Your task to perform on an android device: check storage Image 0: 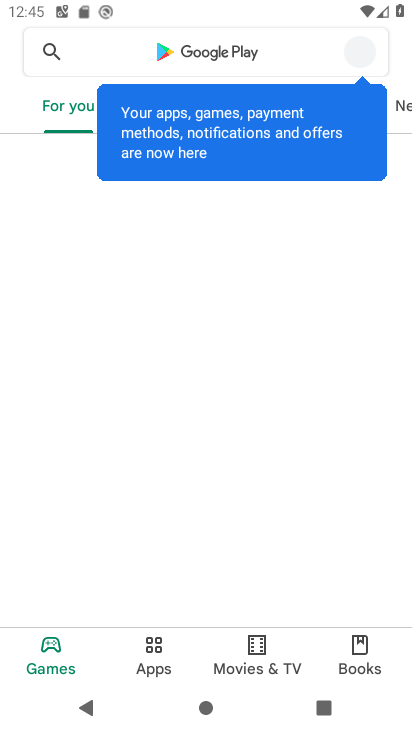
Step 0: press home button
Your task to perform on an android device: check storage Image 1: 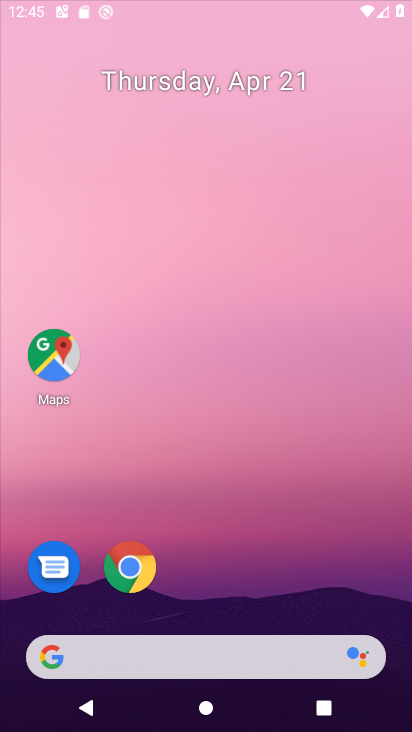
Step 1: drag from (303, 556) to (288, 12)
Your task to perform on an android device: check storage Image 2: 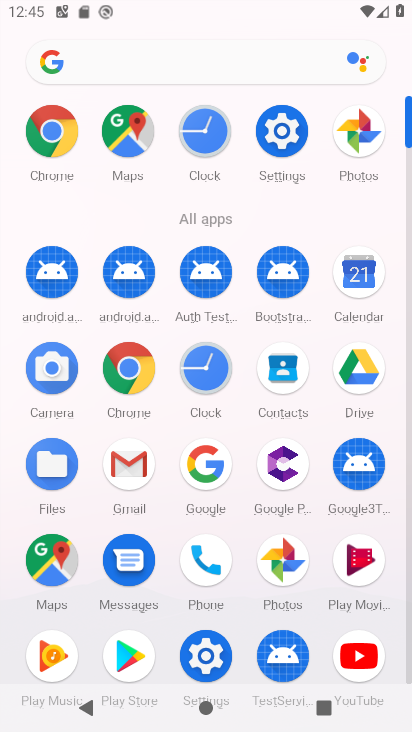
Step 2: click (280, 137)
Your task to perform on an android device: check storage Image 3: 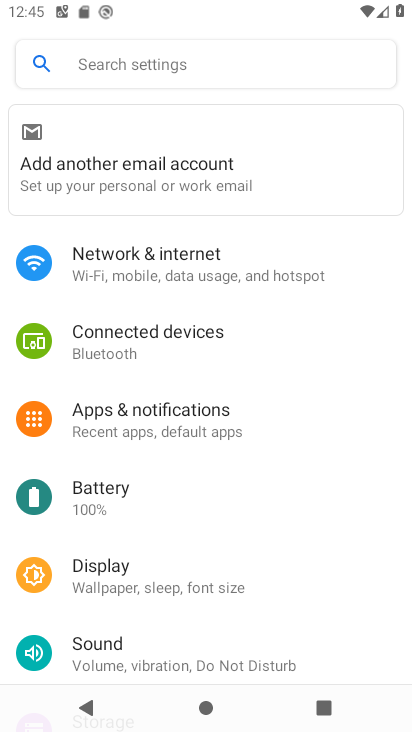
Step 3: drag from (133, 666) to (191, 286)
Your task to perform on an android device: check storage Image 4: 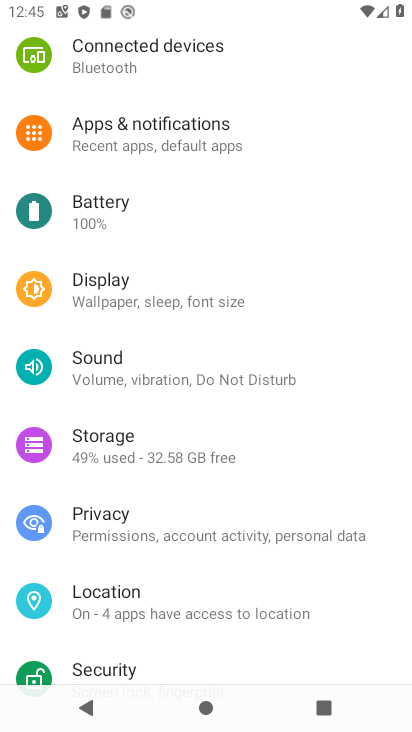
Step 4: click (83, 430)
Your task to perform on an android device: check storage Image 5: 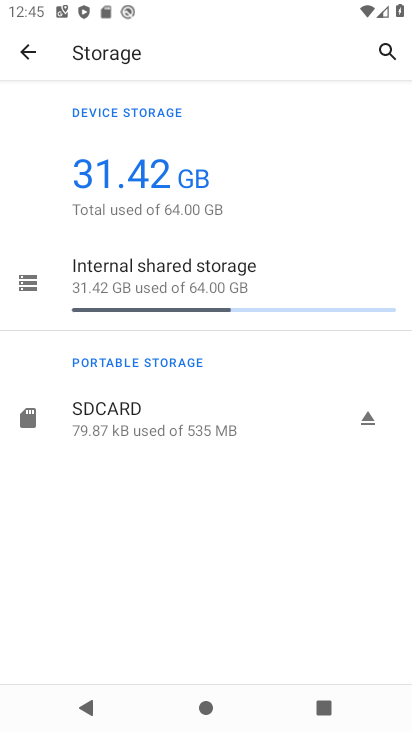
Step 5: task complete